Your task to perform on an android device: Search for Mexican restaurants on Maps Image 0: 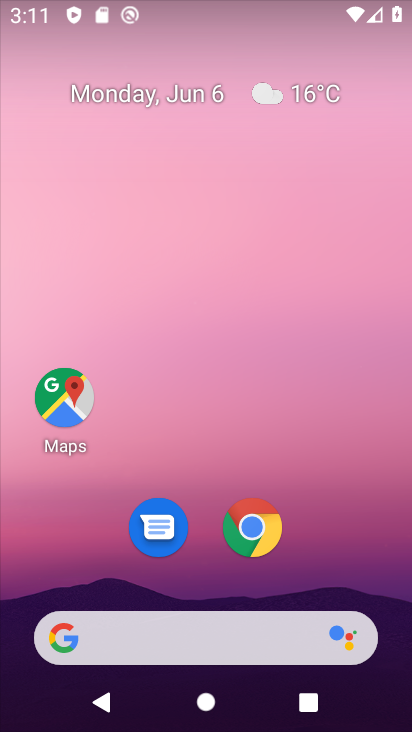
Step 0: drag from (346, 526) to (190, 74)
Your task to perform on an android device: Search for Mexican restaurants on Maps Image 1: 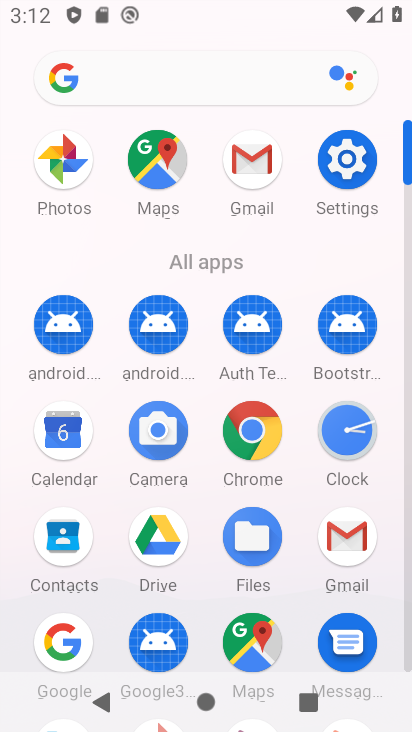
Step 1: click (353, 164)
Your task to perform on an android device: Search for Mexican restaurants on Maps Image 2: 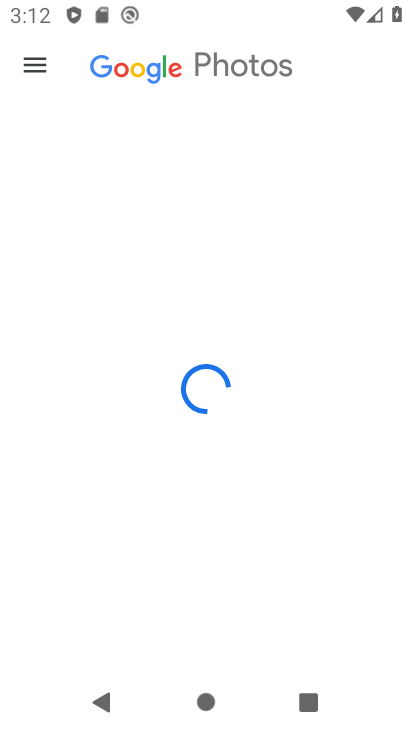
Step 2: press home button
Your task to perform on an android device: Search for Mexican restaurants on Maps Image 3: 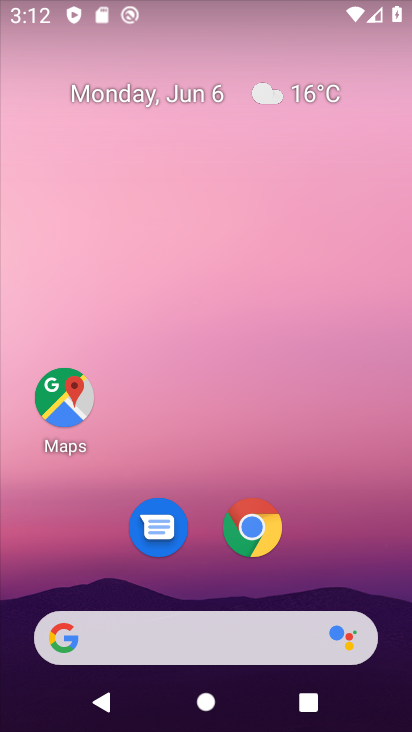
Step 3: drag from (337, 552) to (266, 102)
Your task to perform on an android device: Search for Mexican restaurants on Maps Image 4: 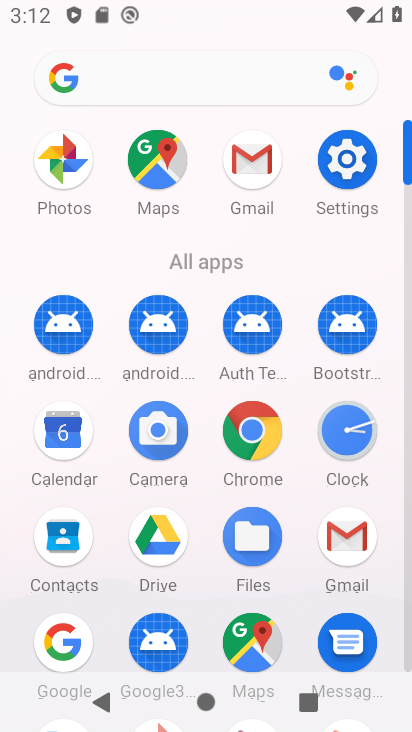
Step 4: click (349, 162)
Your task to perform on an android device: Search for Mexican restaurants on Maps Image 5: 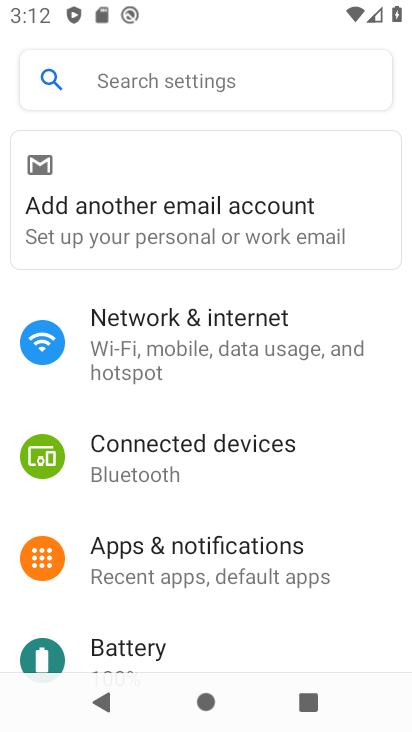
Step 5: drag from (215, 563) to (259, 400)
Your task to perform on an android device: Search for Mexican restaurants on Maps Image 6: 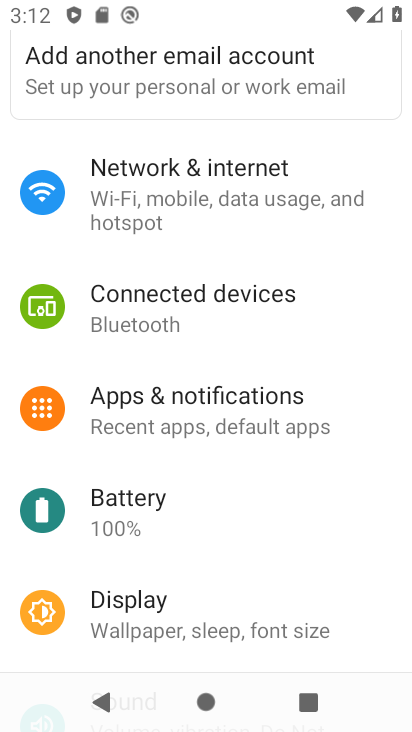
Step 6: click (254, 643)
Your task to perform on an android device: Search for Mexican restaurants on Maps Image 7: 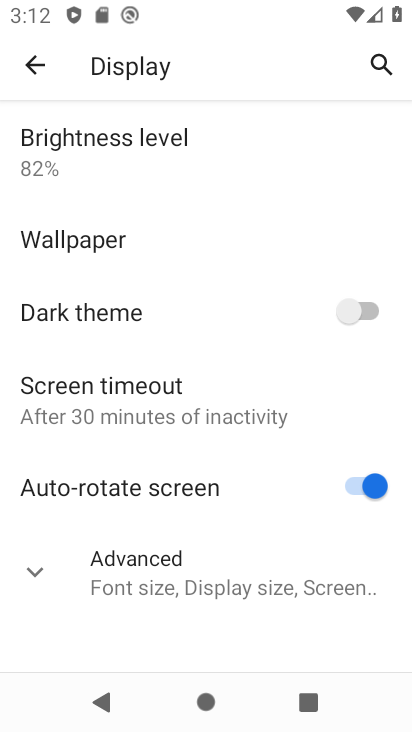
Step 7: click (174, 394)
Your task to perform on an android device: Search for Mexican restaurants on Maps Image 8: 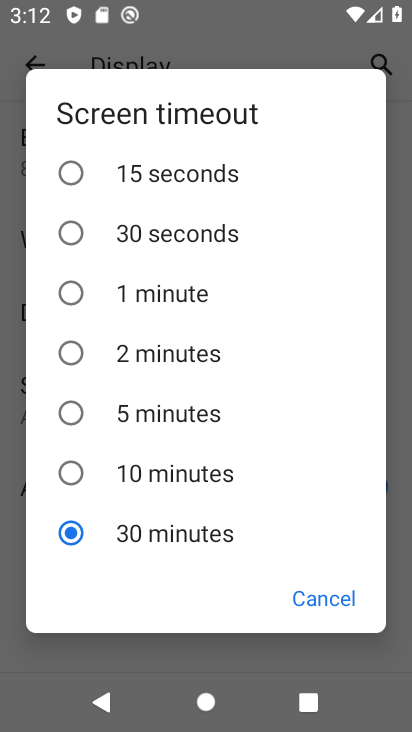
Step 8: task complete